Your task to perform on an android device: Open Google Chrome and open the bookmarks view Image 0: 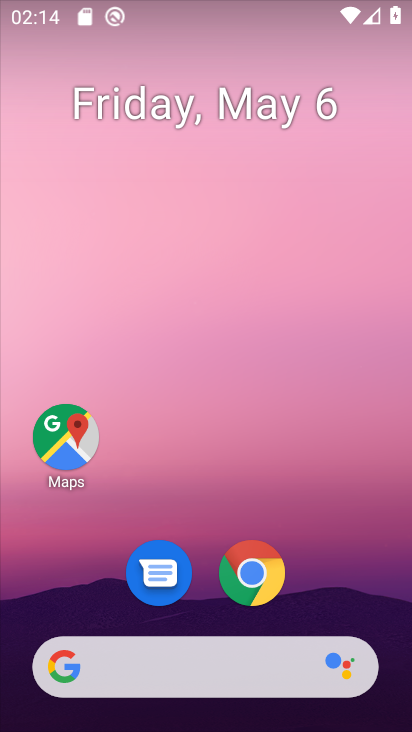
Step 0: drag from (329, 515) to (333, 302)
Your task to perform on an android device: Open Google Chrome and open the bookmarks view Image 1: 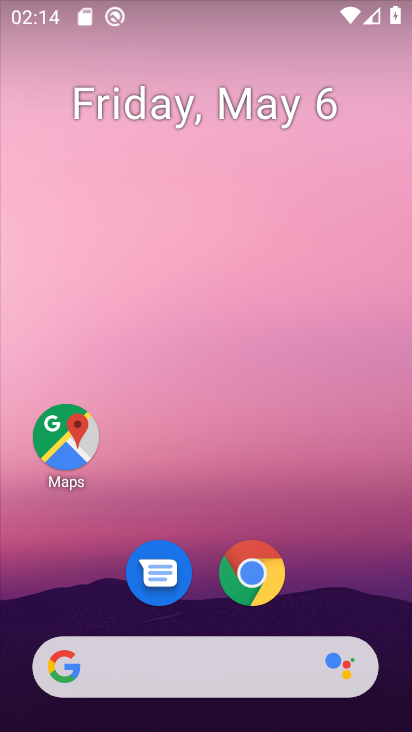
Step 1: drag from (341, 433) to (348, 267)
Your task to perform on an android device: Open Google Chrome and open the bookmarks view Image 2: 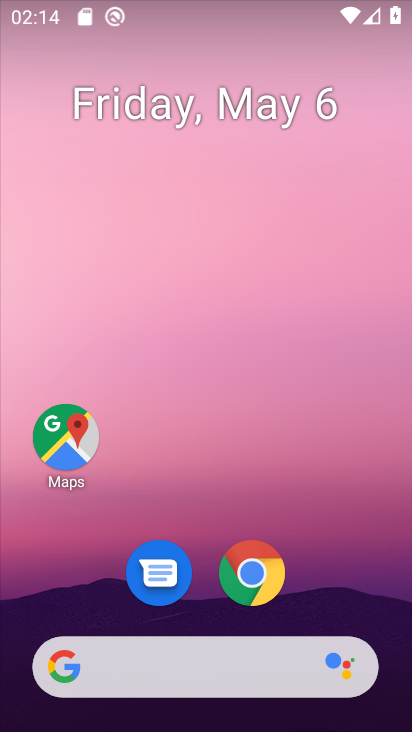
Step 2: drag from (307, 524) to (336, 204)
Your task to perform on an android device: Open Google Chrome and open the bookmarks view Image 3: 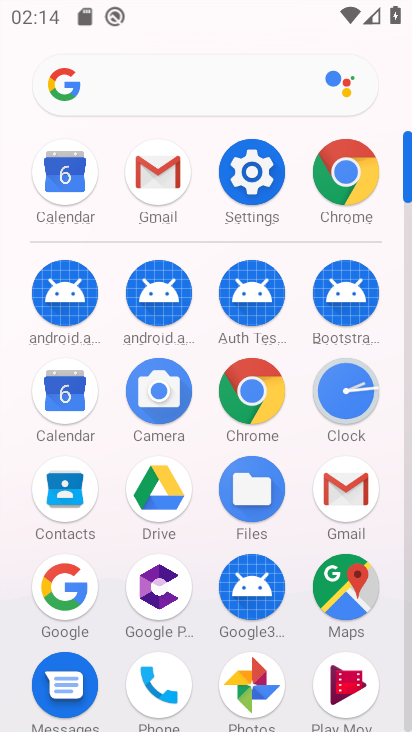
Step 3: click (229, 393)
Your task to perform on an android device: Open Google Chrome and open the bookmarks view Image 4: 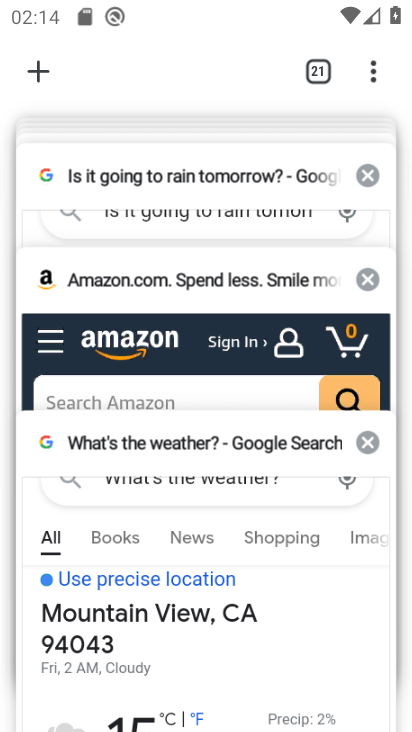
Step 4: click (364, 78)
Your task to perform on an android device: Open Google Chrome and open the bookmarks view Image 5: 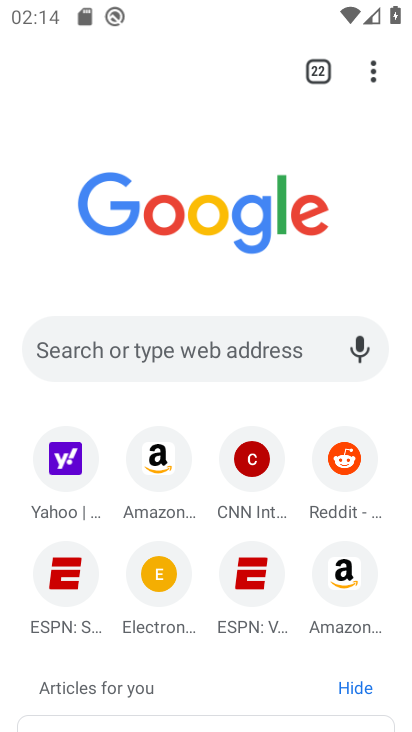
Step 5: click (358, 71)
Your task to perform on an android device: Open Google Chrome and open the bookmarks view Image 6: 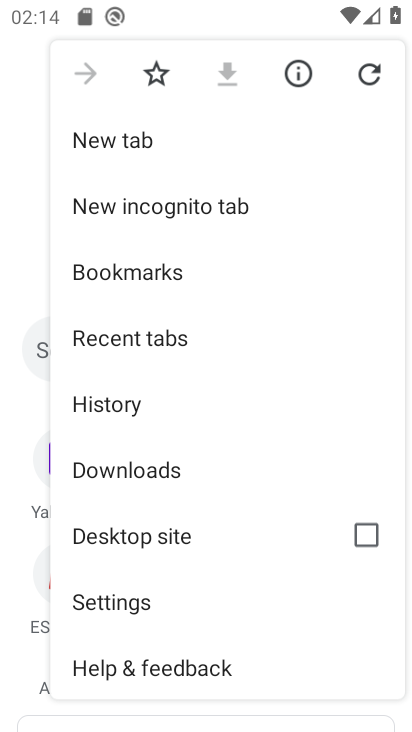
Step 6: click (158, 269)
Your task to perform on an android device: Open Google Chrome and open the bookmarks view Image 7: 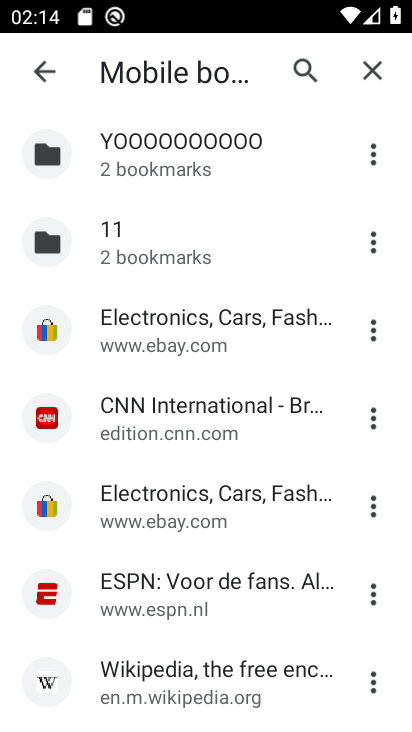
Step 7: task complete